Your task to perform on an android device: Is it going to rain tomorrow? Image 0: 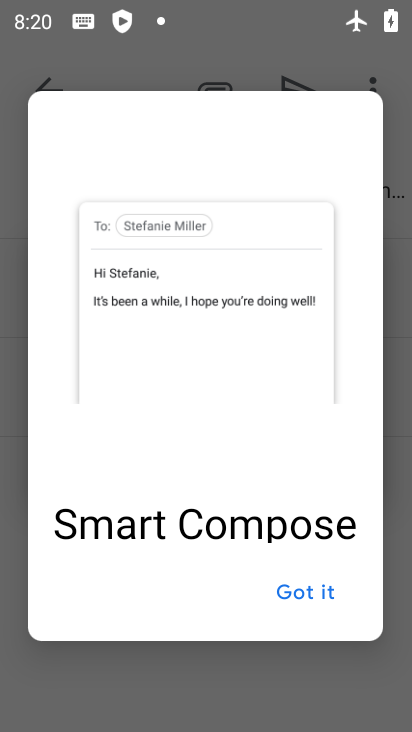
Step 0: press home button
Your task to perform on an android device: Is it going to rain tomorrow? Image 1: 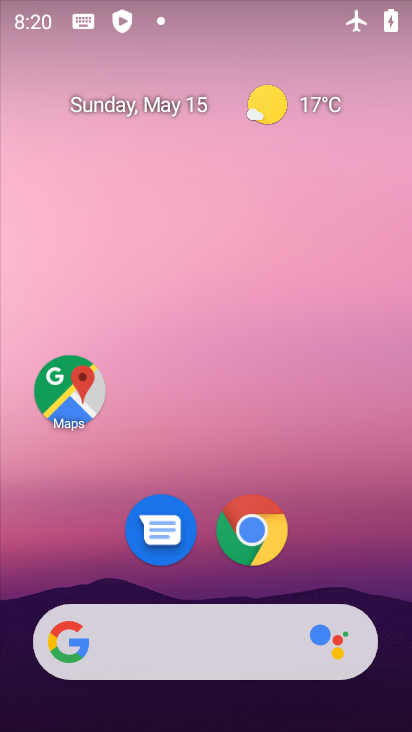
Step 1: drag from (199, 725) to (198, 170)
Your task to perform on an android device: Is it going to rain tomorrow? Image 2: 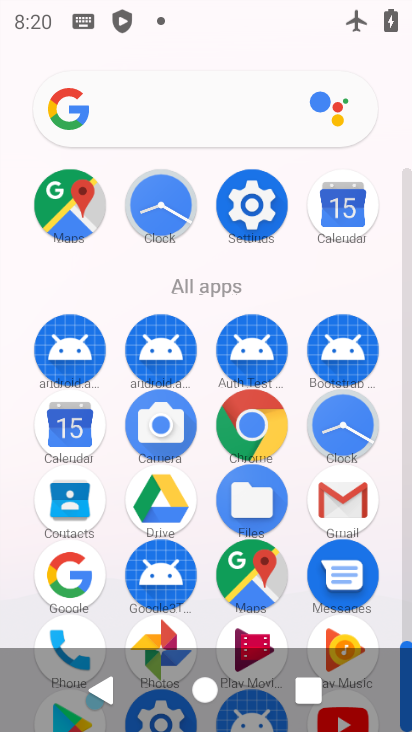
Step 2: click (246, 198)
Your task to perform on an android device: Is it going to rain tomorrow? Image 3: 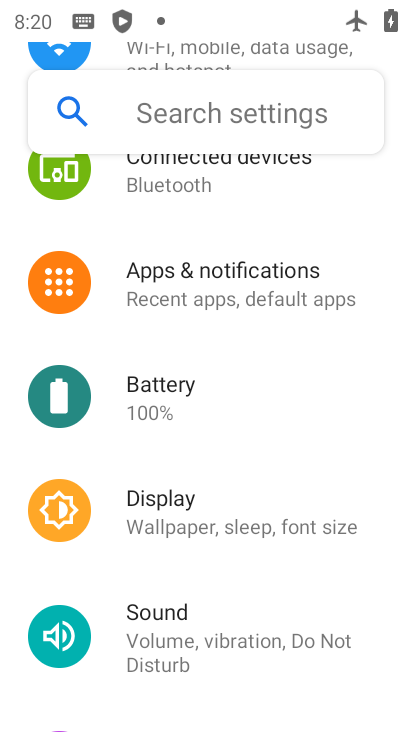
Step 3: drag from (235, 216) to (259, 587)
Your task to perform on an android device: Is it going to rain tomorrow? Image 4: 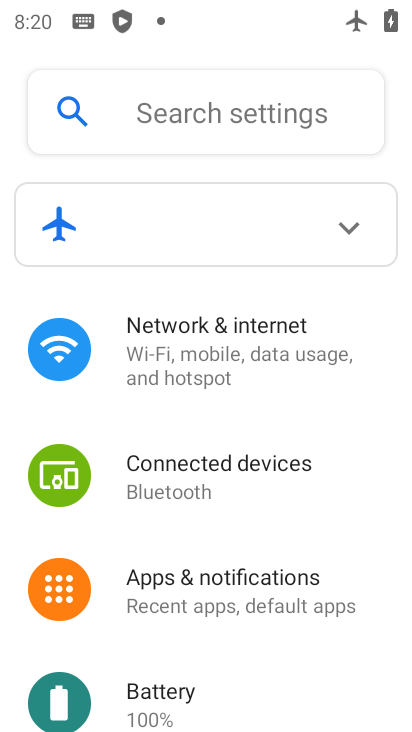
Step 4: click (208, 343)
Your task to perform on an android device: Is it going to rain tomorrow? Image 5: 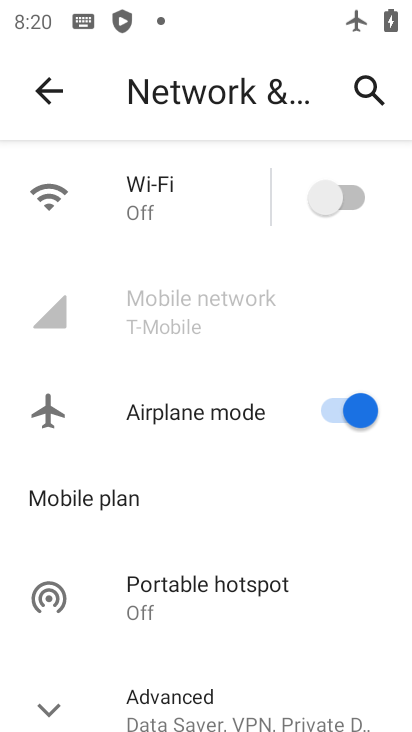
Step 5: click (341, 409)
Your task to perform on an android device: Is it going to rain tomorrow? Image 6: 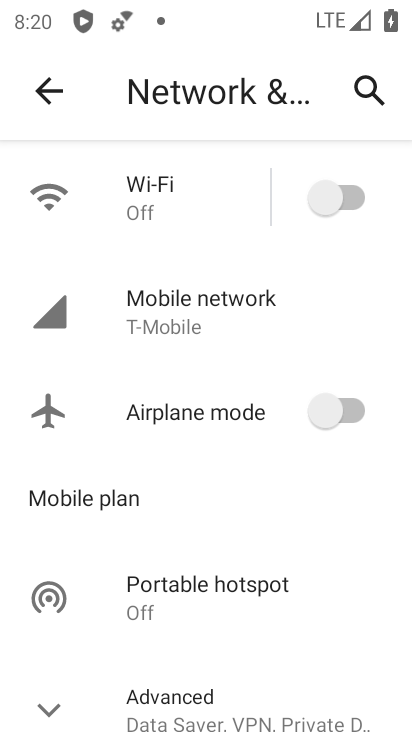
Step 6: press home button
Your task to perform on an android device: Is it going to rain tomorrow? Image 7: 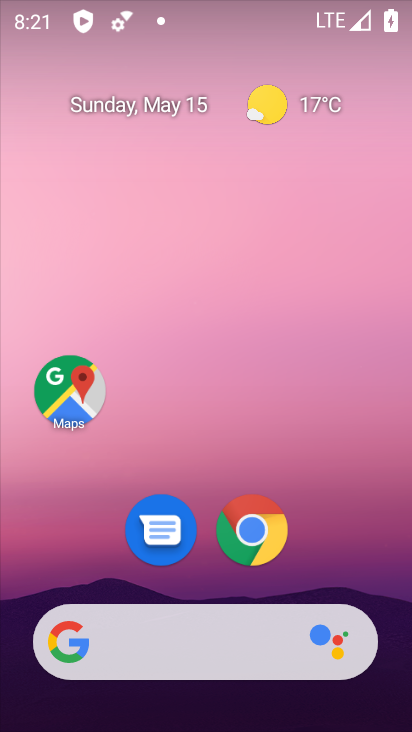
Step 7: click (265, 111)
Your task to perform on an android device: Is it going to rain tomorrow? Image 8: 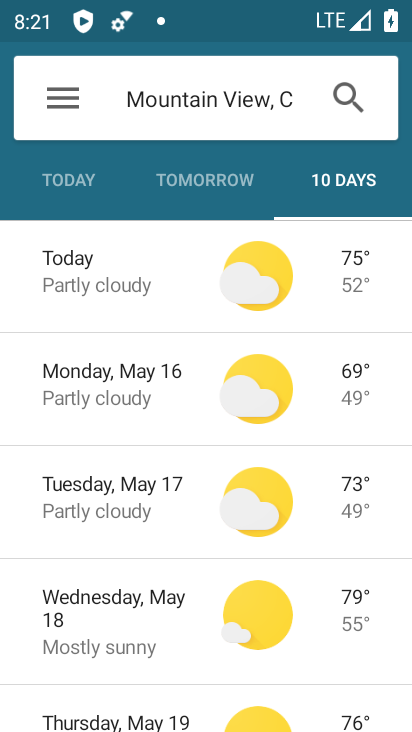
Step 8: click (195, 181)
Your task to perform on an android device: Is it going to rain tomorrow? Image 9: 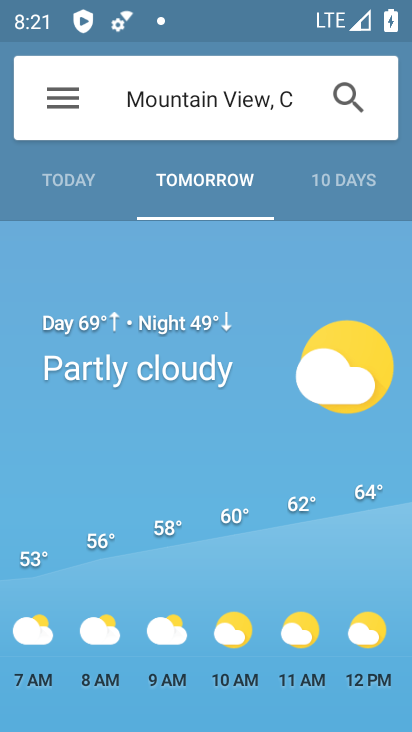
Step 9: task complete